Your task to perform on an android device: Go to CNN.com Image 0: 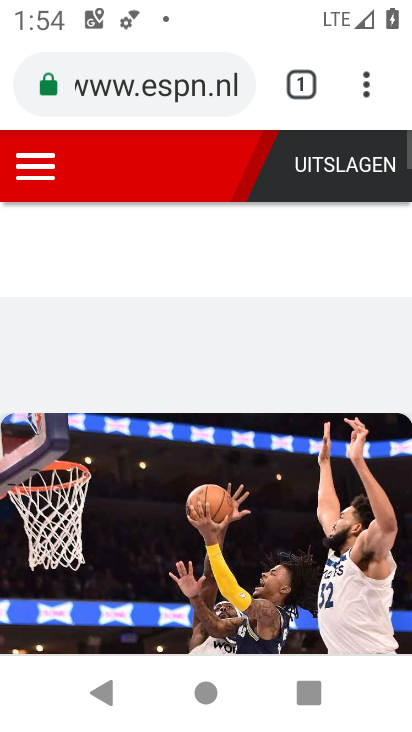
Step 0: click (122, 79)
Your task to perform on an android device: Go to CNN.com Image 1: 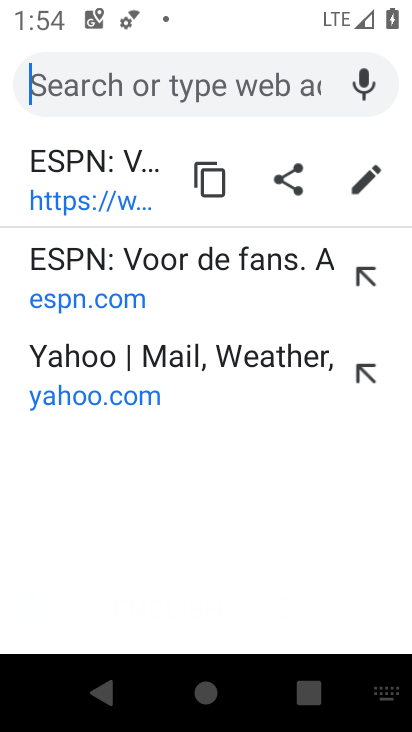
Step 1: type "cnn.com"
Your task to perform on an android device: Go to CNN.com Image 2: 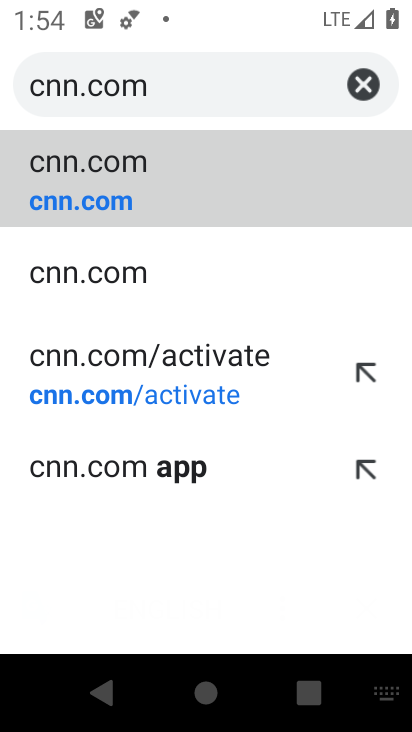
Step 2: click (105, 178)
Your task to perform on an android device: Go to CNN.com Image 3: 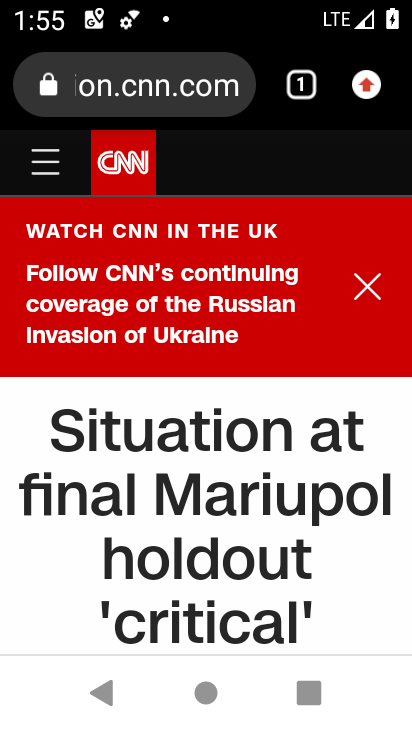
Step 3: task complete